Your task to perform on an android device: Search for vegetarian restaurants on Maps Image 0: 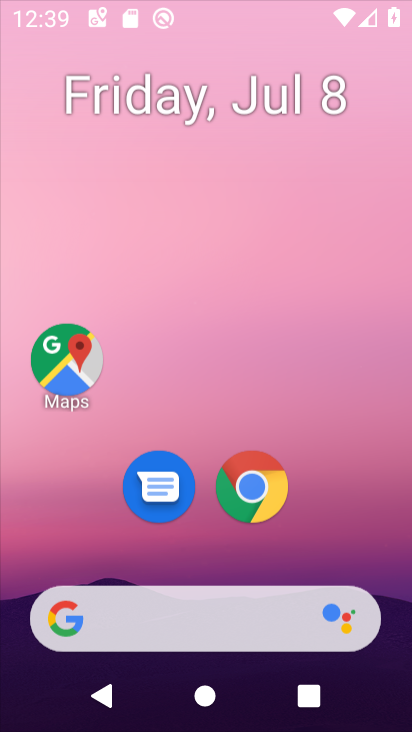
Step 0: press home button
Your task to perform on an android device: Search for vegetarian restaurants on Maps Image 1: 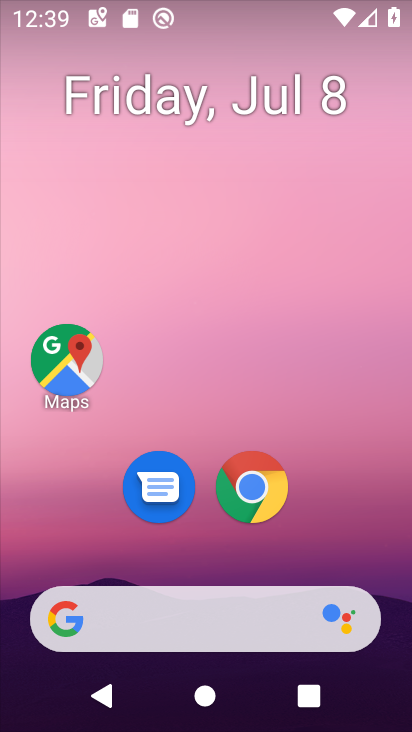
Step 1: drag from (362, 534) to (362, 75)
Your task to perform on an android device: Search for vegetarian restaurants on Maps Image 2: 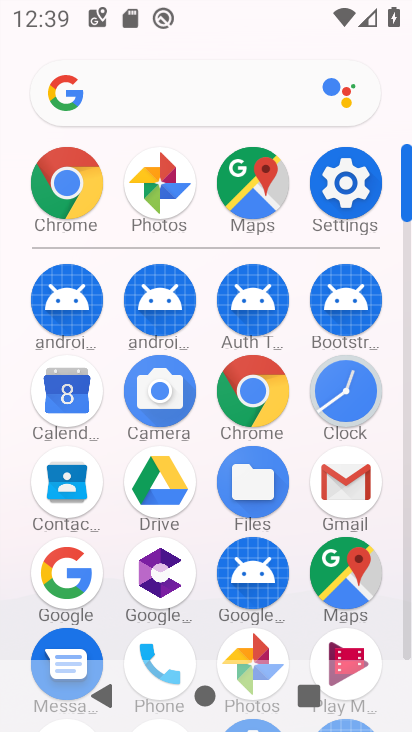
Step 2: click (356, 568)
Your task to perform on an android device: Search for vegetarian restaurants on Maps Image 3: 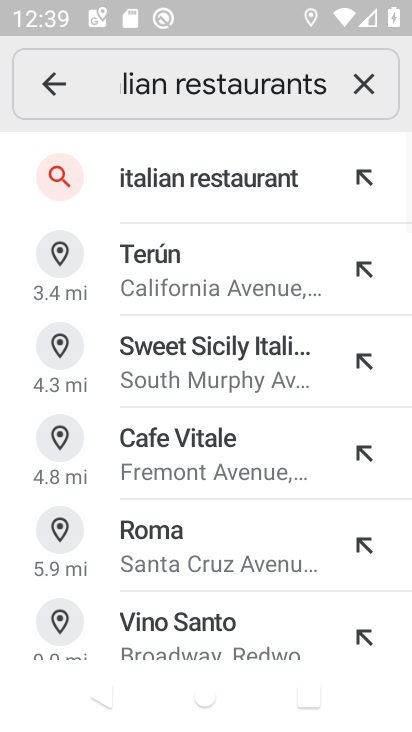
Step 3: press back button
Your task to perform on an android device: Search for vegetarian restaurants on Maps Image 4: 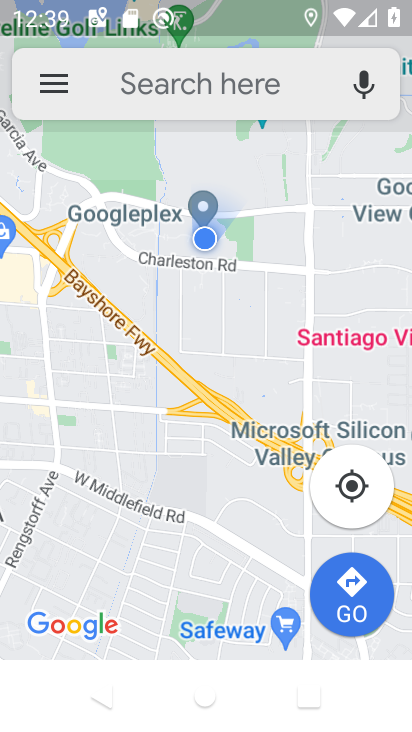
Step 4: click (238, 93)
Your task to perform on an android device: Search for vegetarian restaurants on Maps Image 5: 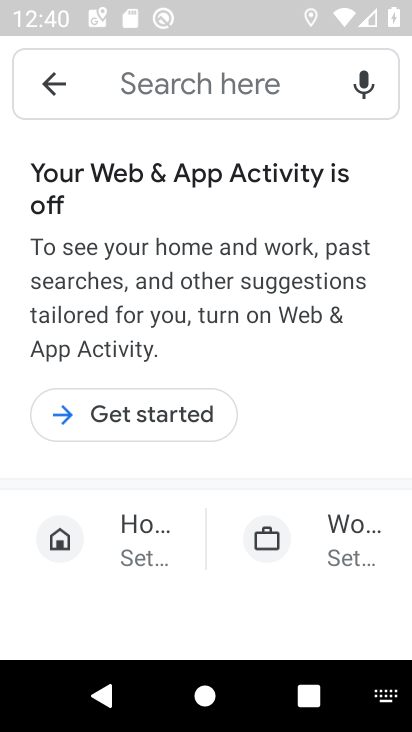
Step 5: type "vegetrain restaurants"
Your task to perform on an android device: Search for vegetarian restaurants on Maps Image 6: 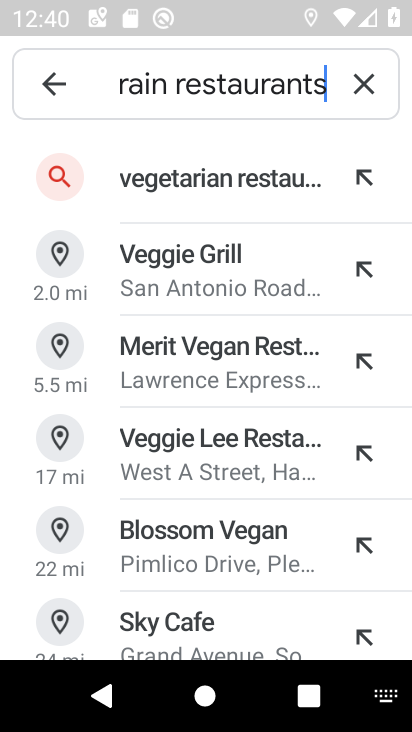
Step 6: click (274, 193)
Your task to perform on an android device: Search for vegetarian restaurants on Maps Image 7: 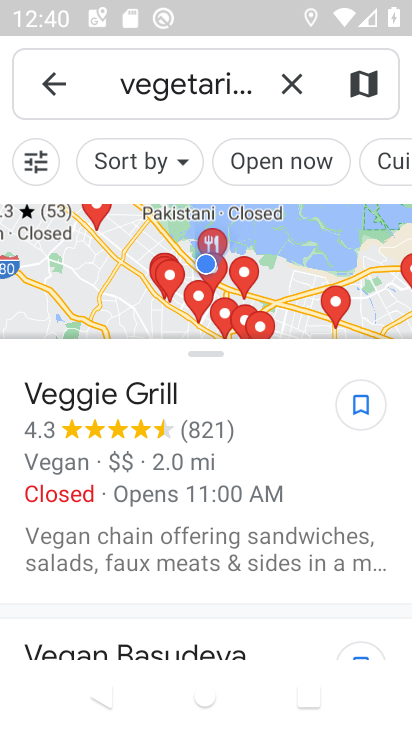
Step 7: task complete